Your task to perform on an android device: turn off notifications in google photos Image 0: 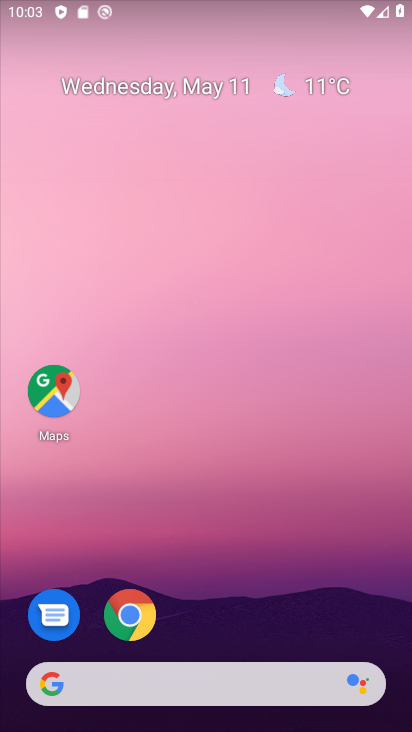
Step 0: drag from (229, 626) to (294, 212)
Your task to perform on an android device: turn off notifications in google photos Image 1: 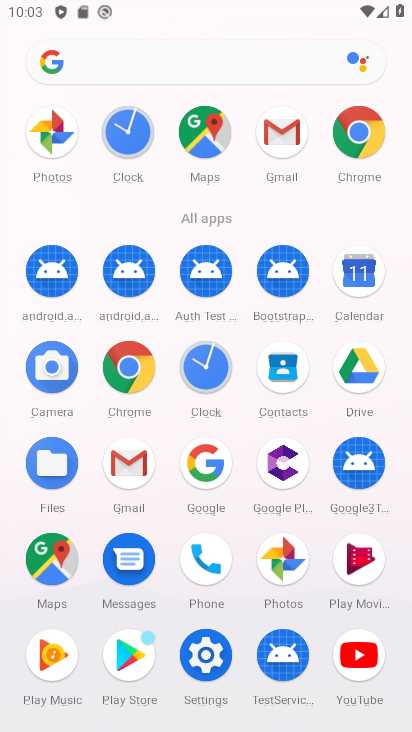
Step 1: click (280, 558)
Your task to perform on an android device: turn off notifications in google photos Image 2: 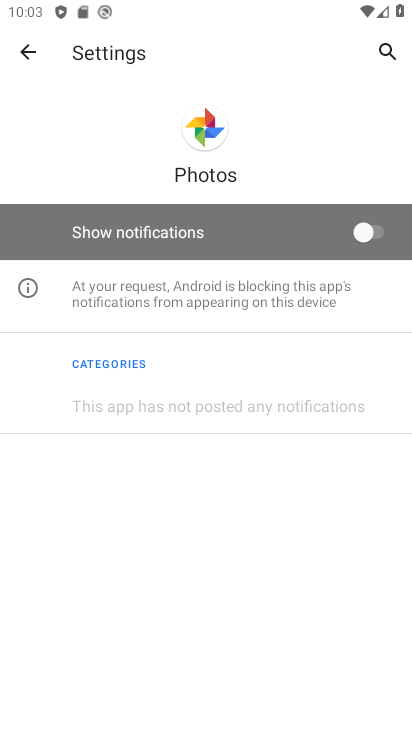
Step 2: click (28, 52)
Your task to perform on an android device: turn off notifications in google photos Image 3: 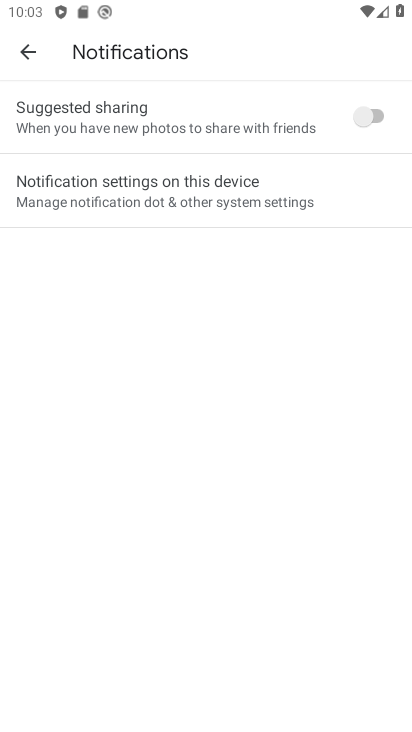
Step 3: click (28, 52)
Your task to perform on an android device: turn off notifications in google photos Image 4: 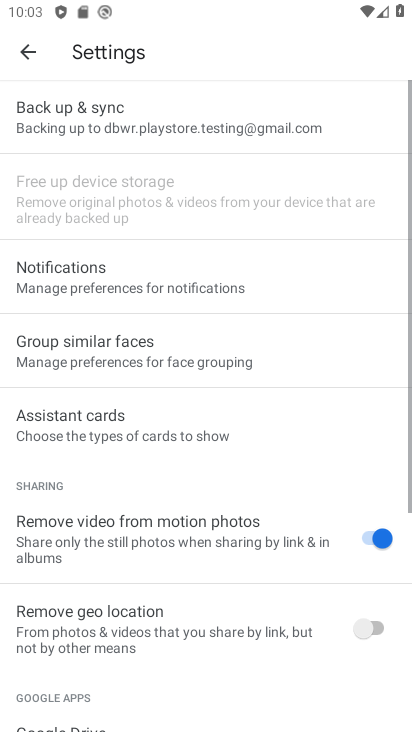
Step 4: click (28, 52)
Your task to perform on an android device: turn off notifications in google photos Image 5: 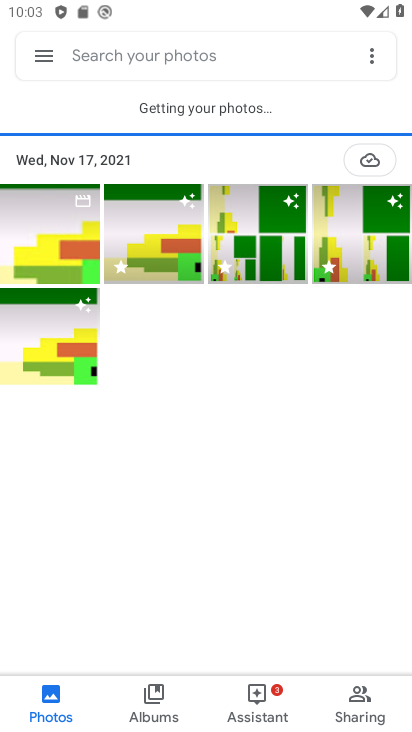
Step 5: click (29, 53)
Your task to perform on an android device: turn off notifications in google photos Image 6: 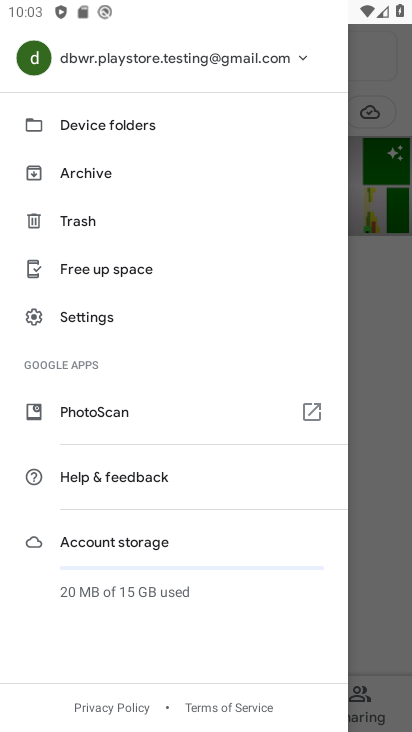
Step 6: click (104, 314)
Your task to perform on an android device: turn off notifications in google photos Image 7: 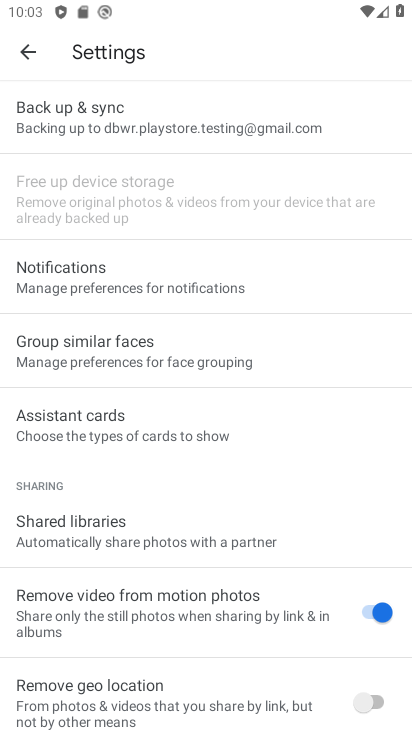
Step 7: click (135, 290)
Your task to perform on an android device: turn off notifications in google photos Image 8: 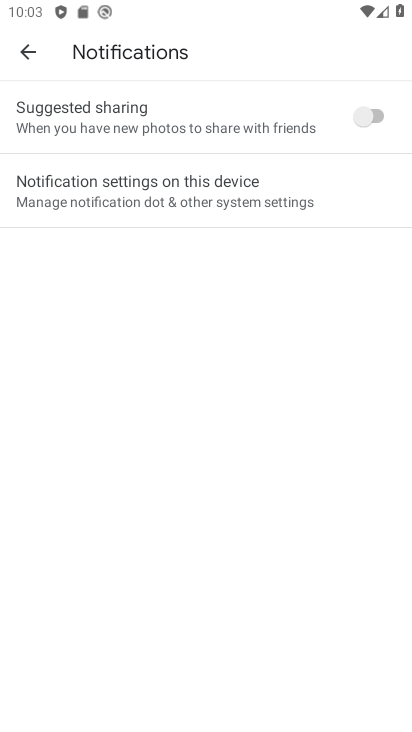
Step 8: click (160, 192)
Your task to perform on an android device: turn off notifications in google photos Image 9: 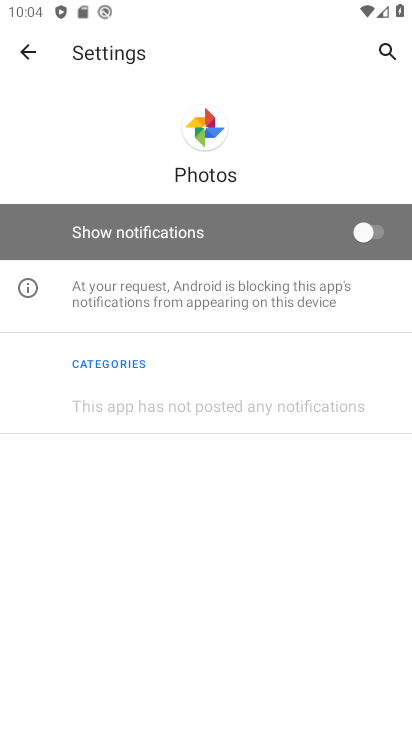
Step 9: task complete